Your task to perform on an android device: Go to internet settings Image 0: 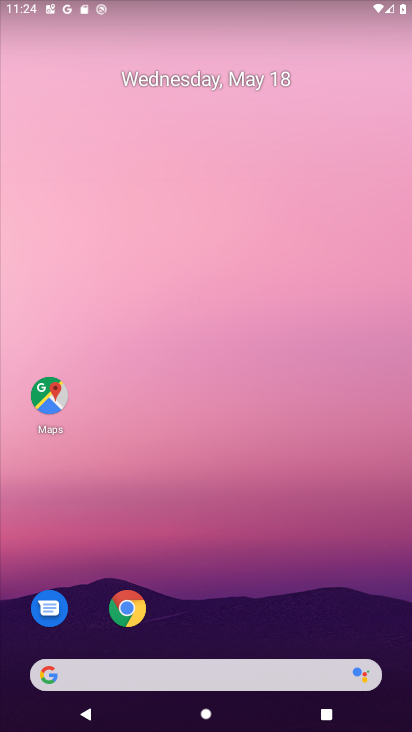
Step 0: drag from (182, 504) to (135, 107)
Your task to perform on an android device: Go to internet settings Image 1: 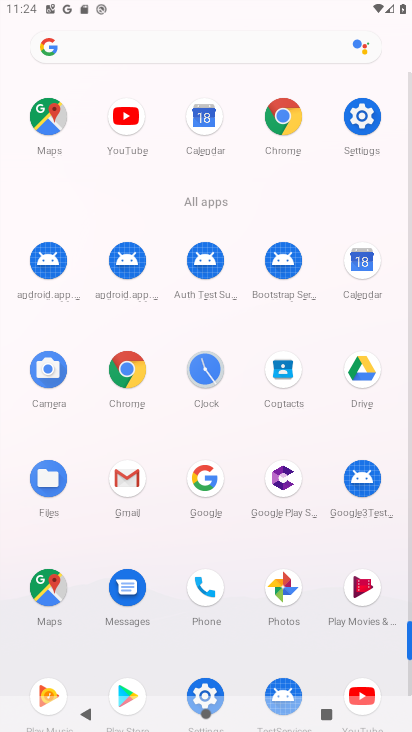
Step 1: click (379, 111)
Your task to perform on an android device: Go to internet settings Image 2: 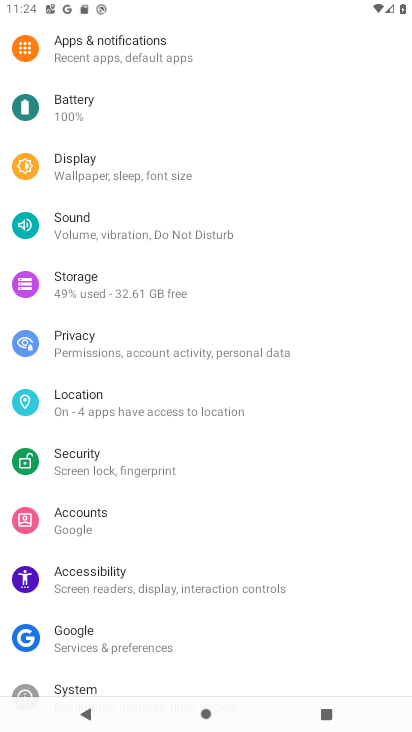
Step 2: drag from (139, 67) to (130, 254)
Your task to perform on an android device: Go to internet settings Image 3: 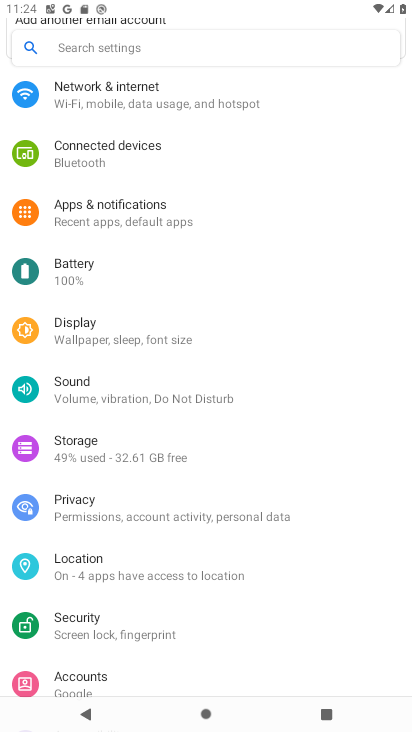
Step 3: click (151, 107)
Your task to perform on an android device: Go to internet settings Image 4: 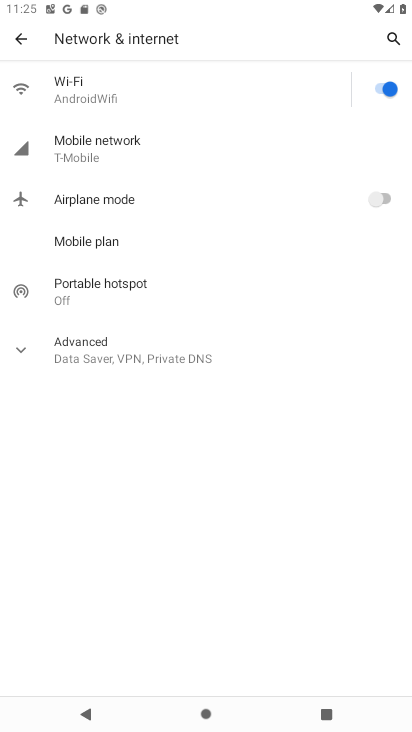
Step 4: task complete